Your task to perform on an android device: Go to Amazon Image 0: 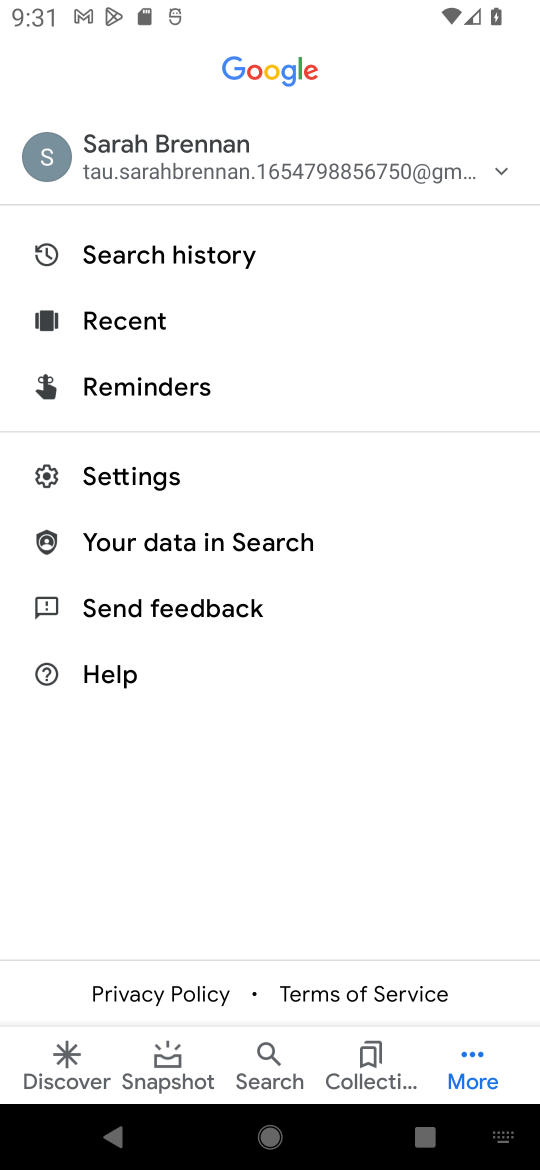
Step 0: press home button
Your task to perform on an android device: Go to Amazon Image 1: 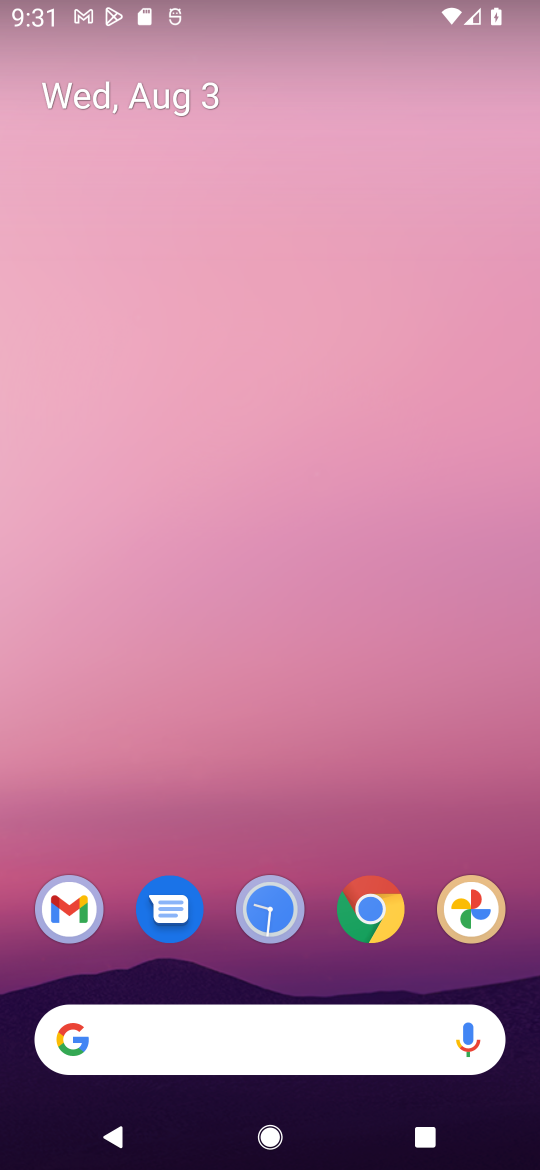
Step 1: drag from (419, 825) to (420, 222)
Your task to perform on an android device: Go to Amazon Image 2: 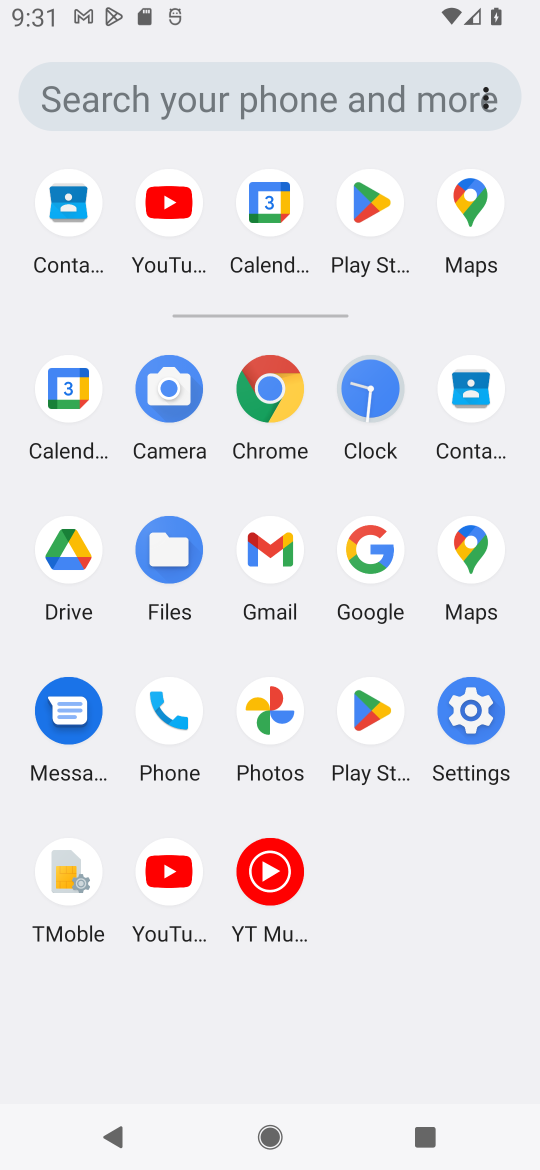
Step 2: click (277, 394)
Your task to perform on an android device: Go to Amazon Image 3: 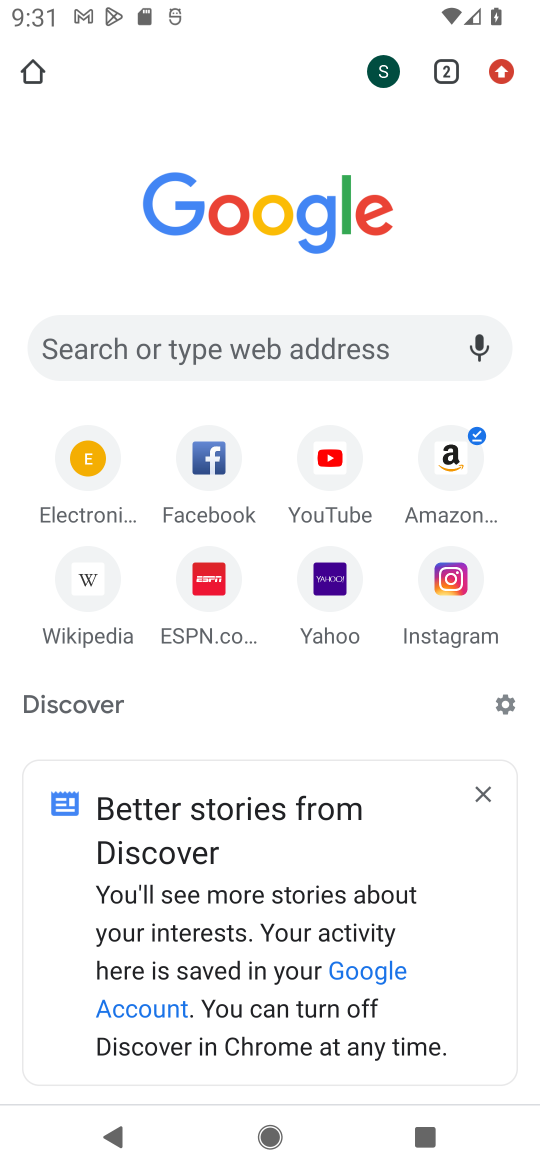
Step 3: click (332, 344)
Your task to perform on an android device: Go to Amazon Image 4: 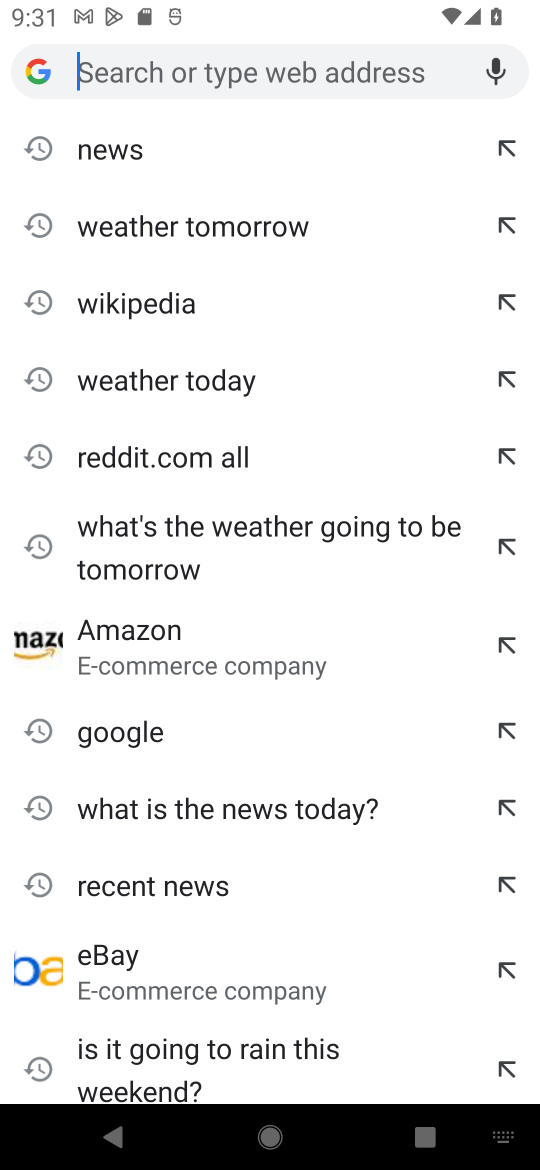
Step 4: type "amazon"
Your task to perform on an android device: Go to Amazon Image 5: 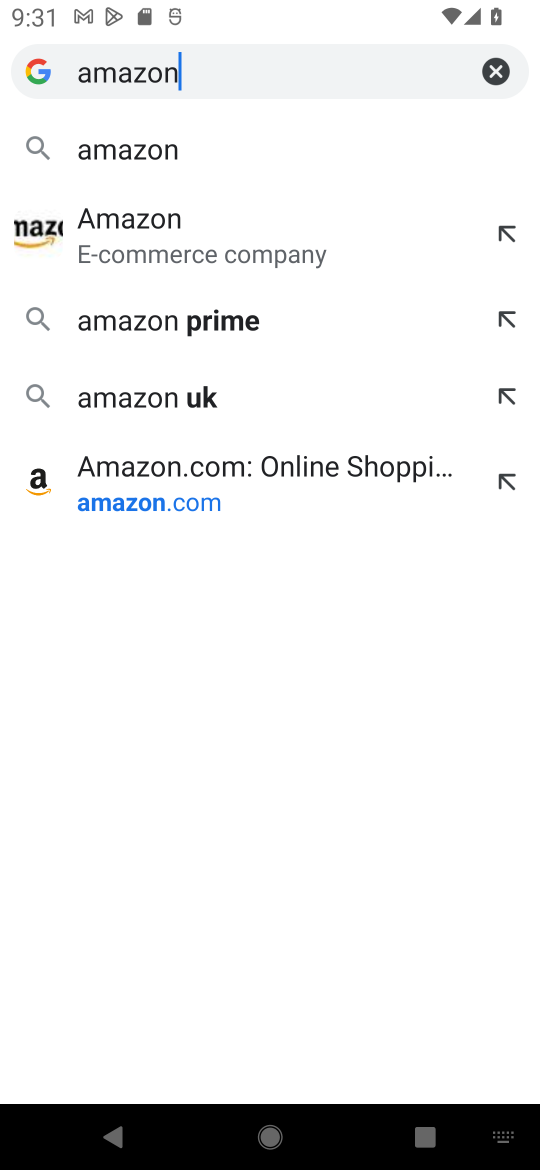
Step 5: click (280, 231)
Your task to perform on an android device: Go to Amazon Image 6: 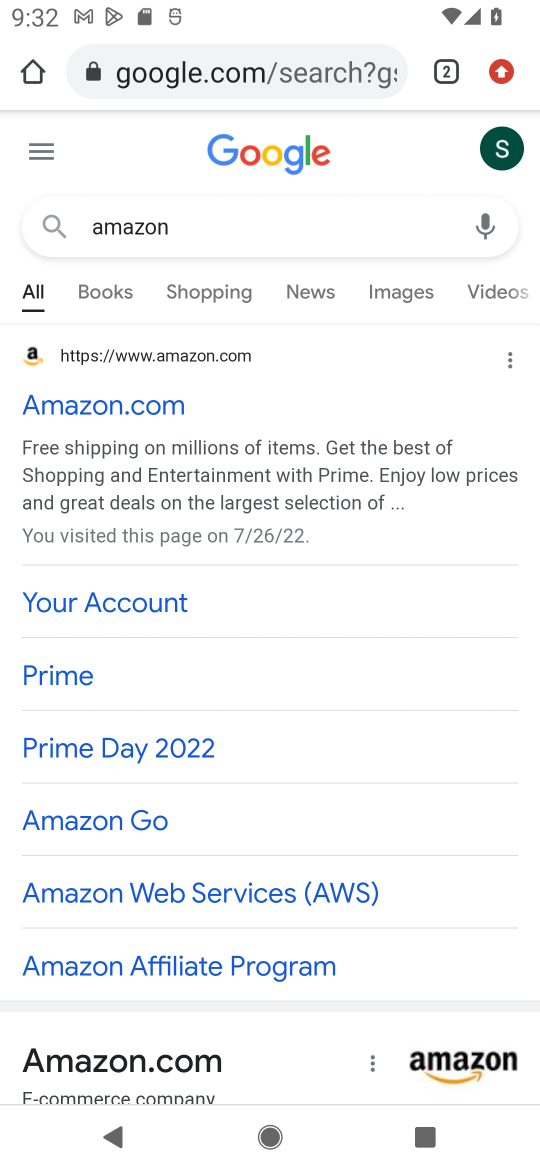
Step 6: task complete